Your task to perform on an android device: Open Maps and search for coffee Image 0: 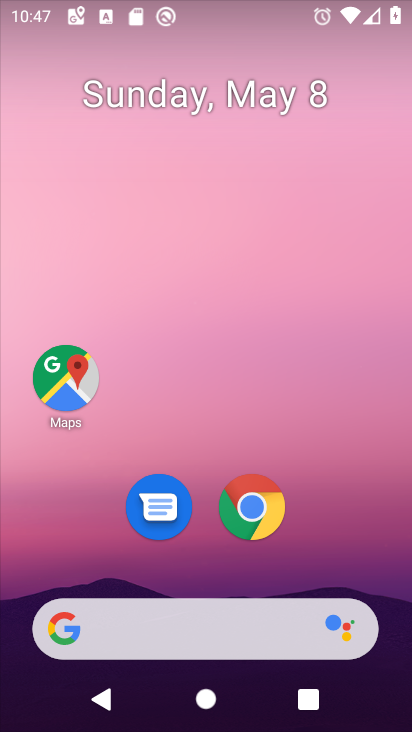
Step 0: click (64, 390)
Your task to perform on an android device: Open Maps and search for coffee Image 1: 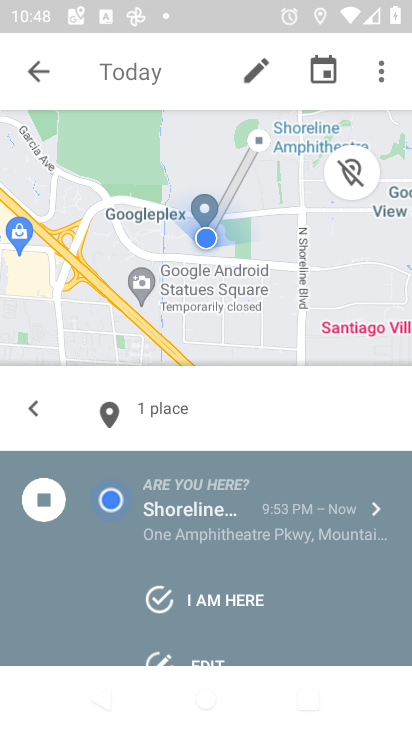
Step 1: click (45, 80)
Your task to perform on an android device: Open Maps and search for coffee Image 2: 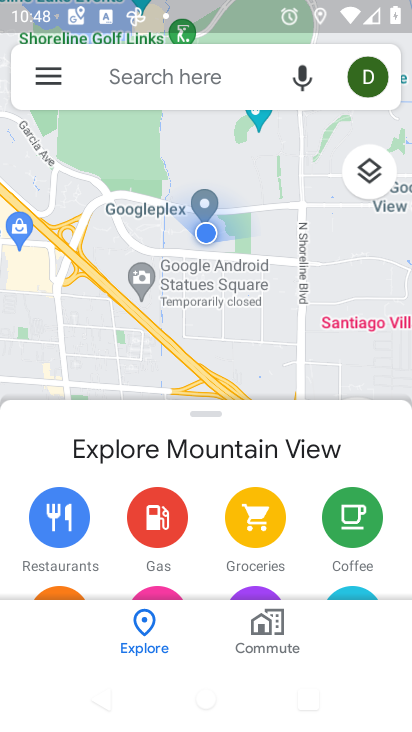
Step 2: click (161, 80)
Your task to perform on an android device: Open Maps and search for coffee Image 3: 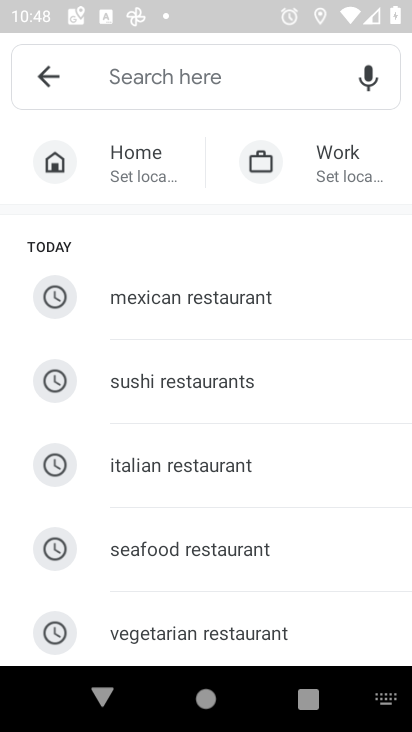
Step 3: type "coffe"
Your task to perform on an android device: Open Maps and search for coffee Image 4: 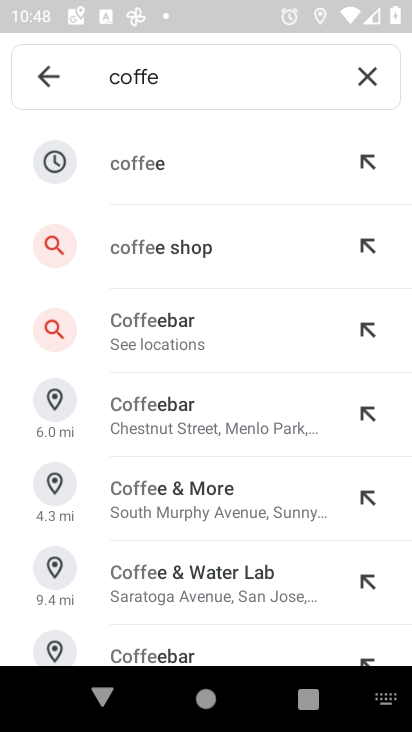
Step 4: click (169, 165)
Your task to perform on an android device: Open Maps and search for coffee Image 5: 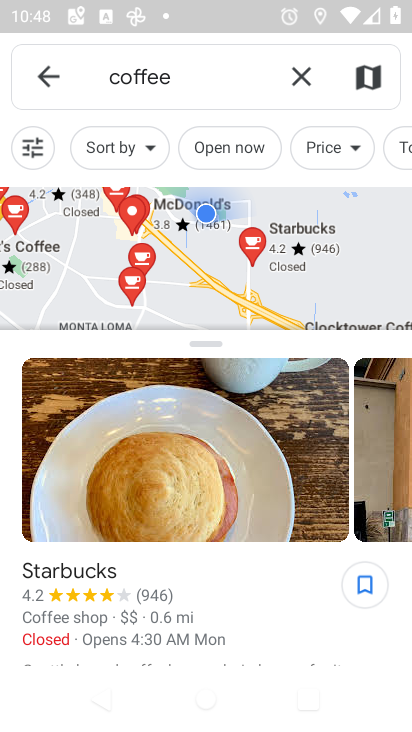
Step 5: task complete